Your task to perform on an android device: turn pop-ups off in chrome Image 0: 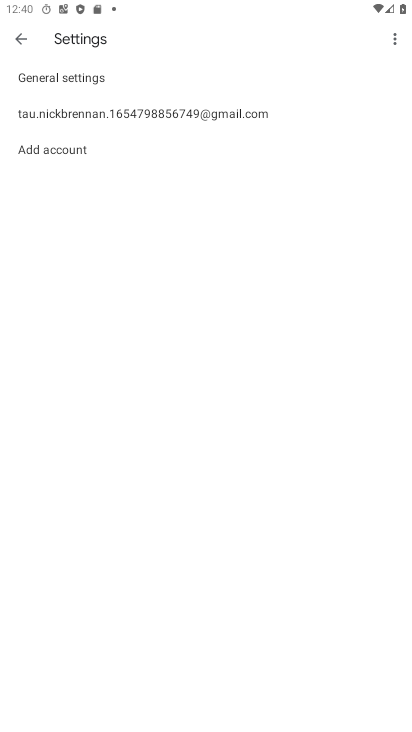
Step 0: press home button
Your task to perform on an android device: turn pop-ups off in chrome Image 1: 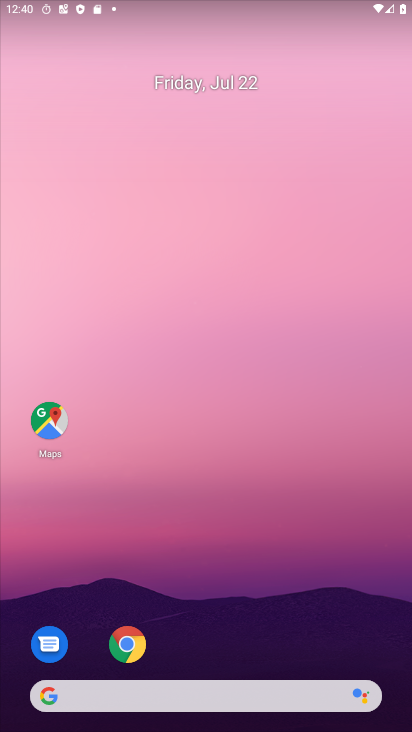
Step 1: drag from (141, 578) to (128, 131)
Your task to perform on an android device: turn pop-ups off in chrome Image 2: 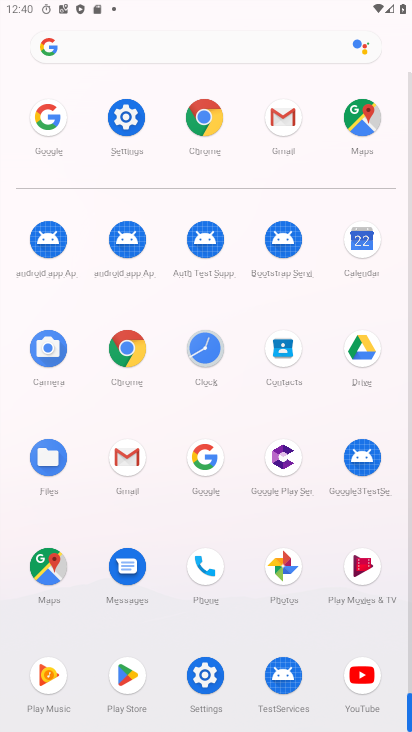
Step 2: click (116, 365)
Your task to perform on an android device: turn pop-ups off in chrome Image 3: 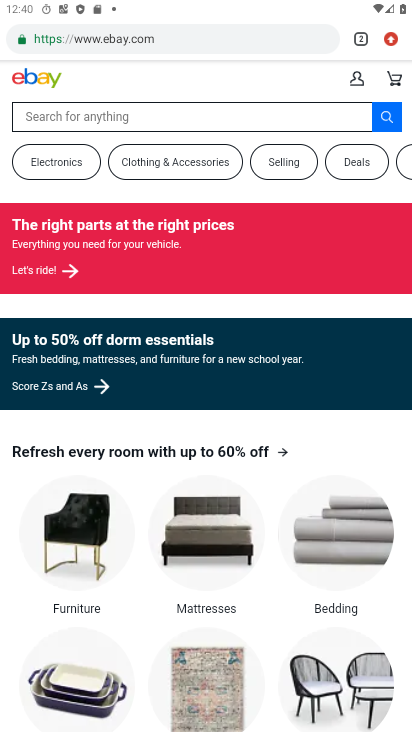
Step 3: click (397, 38)
Your task to perform on an android device: turn pop-ups off in chrome Image 4: 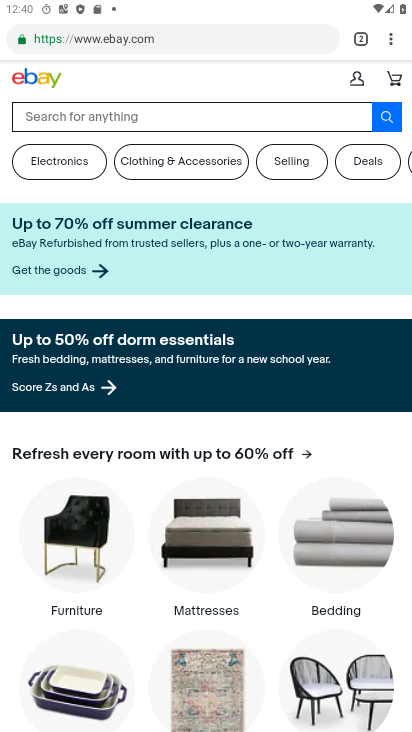
Step 4: click (392, 40)
Your task to perform on an android device: turn pop-ups off in chrome Image 5: 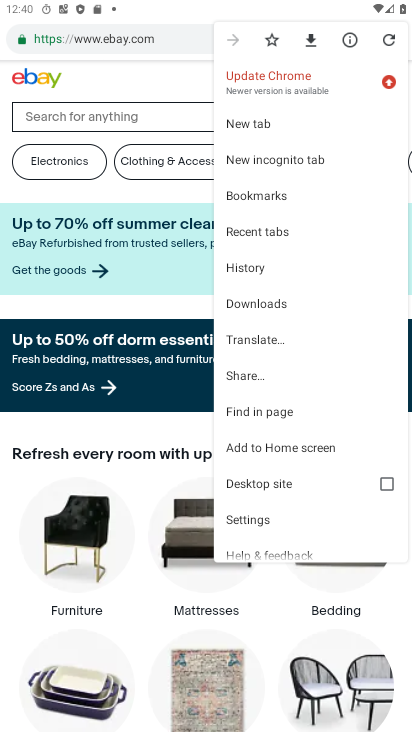
Step 5: click (253, 517)
Your task to perform on an android device: turn pop-ups off in chrome Image 6: 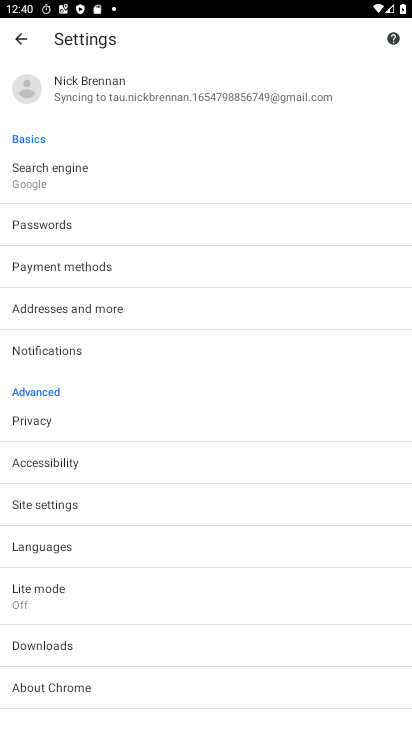
Step 6: click (68, 553)
Your task to perform on an android device: turn pop-ups off in chrome Image 7: 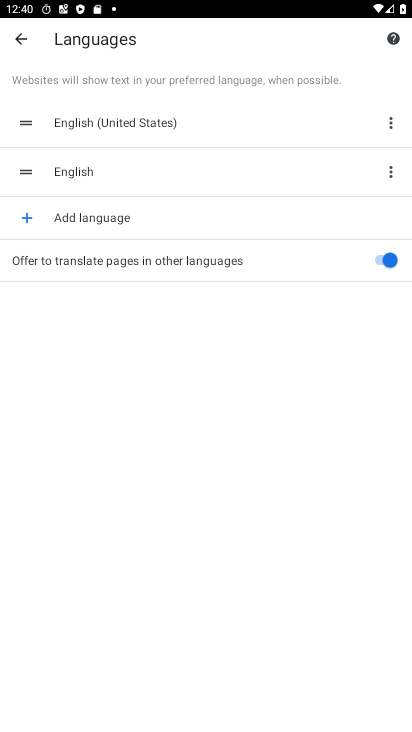
Step 7: click (27, 38)
Your task to perform on an android device: turn pop-ups off in chrome Image 8: 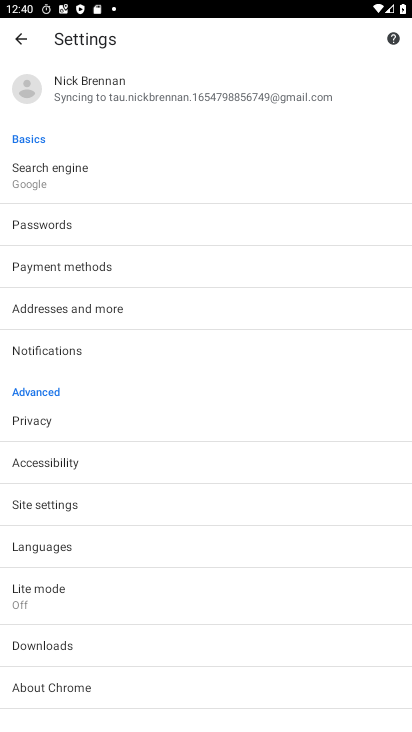
Step 8: click (64, 508)
Your task to perform on an android device: turn pop-ups off in chrome Image 9: 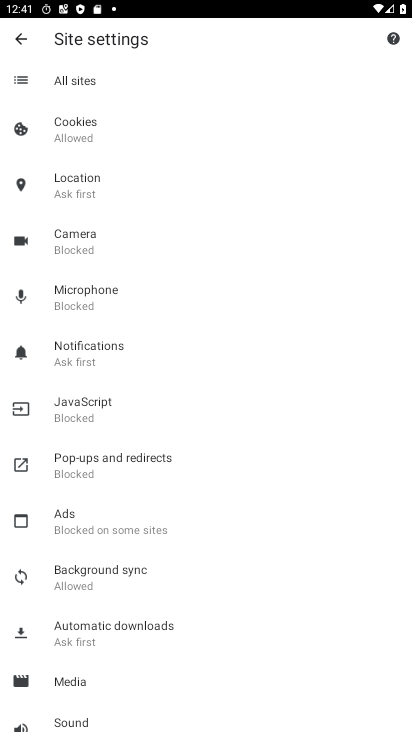
Step 9: click (104, 471)
Your task to perform on an android device: turn pop-ups off in chrome Image 10: 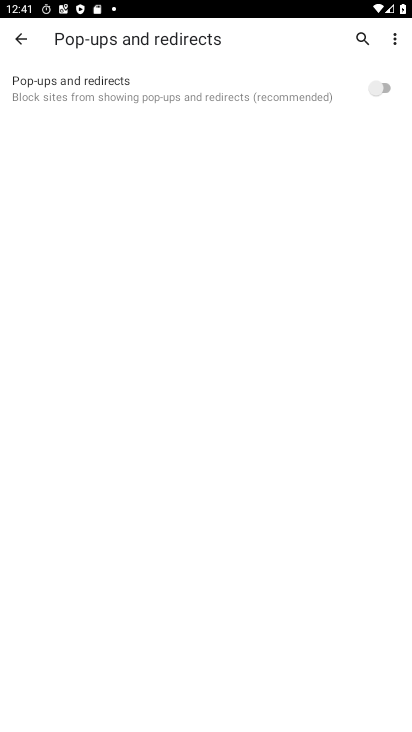
Step 10: task complete